Your task to perform on an android device: Go to Maps Image 0: 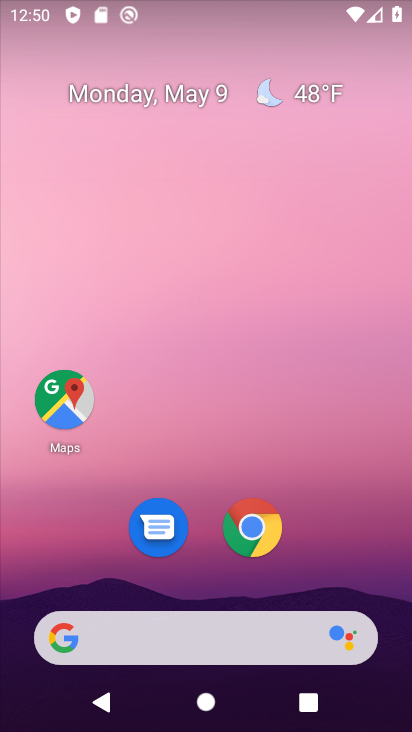
Step 0: click (82, 408)
Your task to perform on an android device: Go to Maps Image 1: 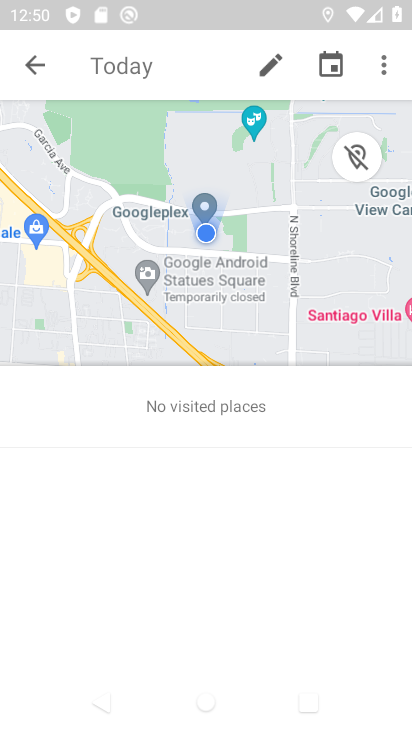
Step 1: click (42, 59)
Your task to perform on an android device: Go to Maps Image 2: 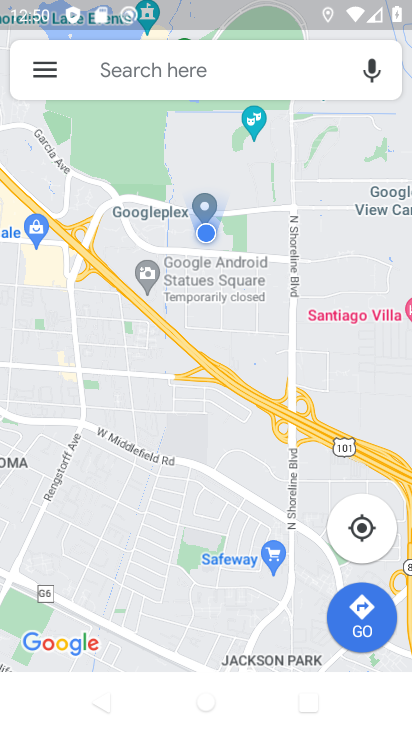
Step 2: task complete